Your task to perform on an android device: Open Maps and search for coffee Image 0: 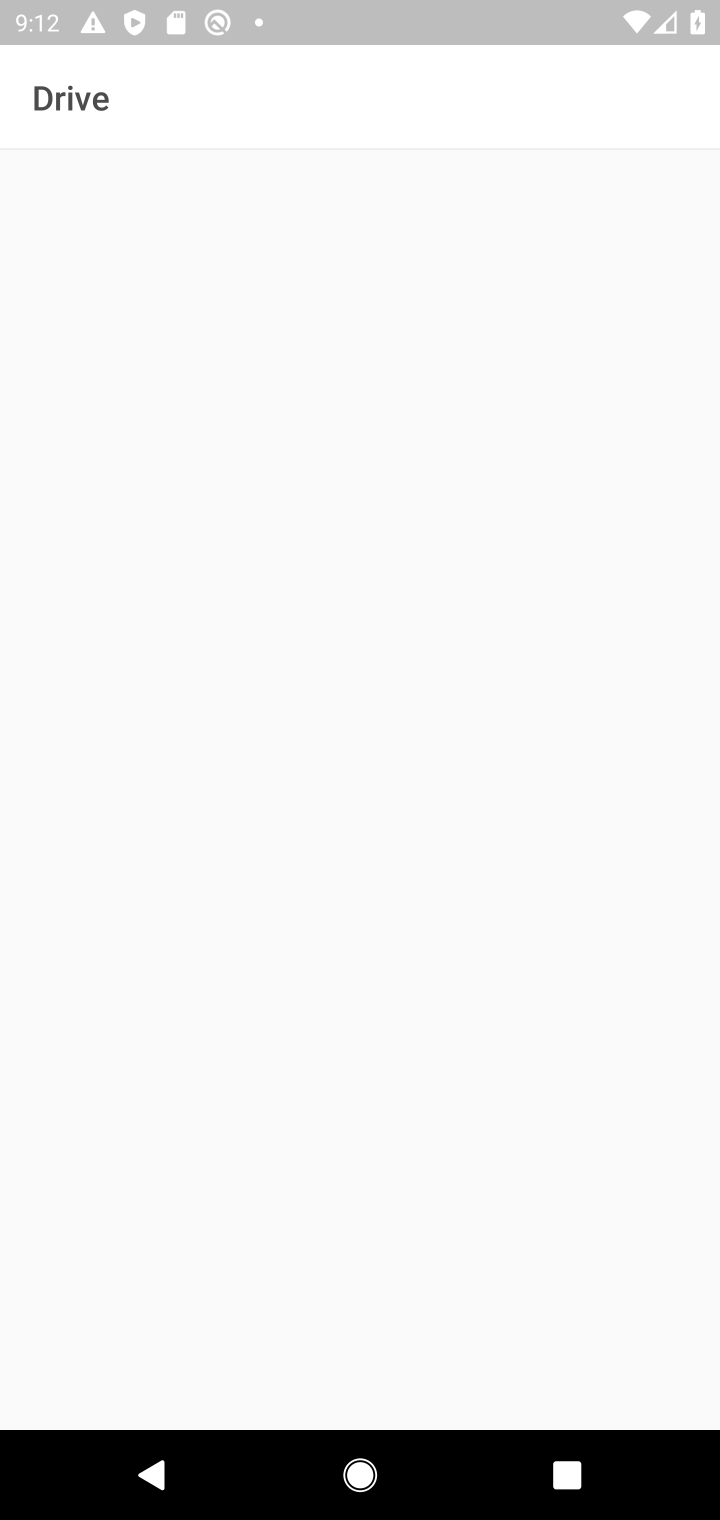
Step 0: press home button
Your task to perform on an android device: Open Maps and search for coffee Image 1: 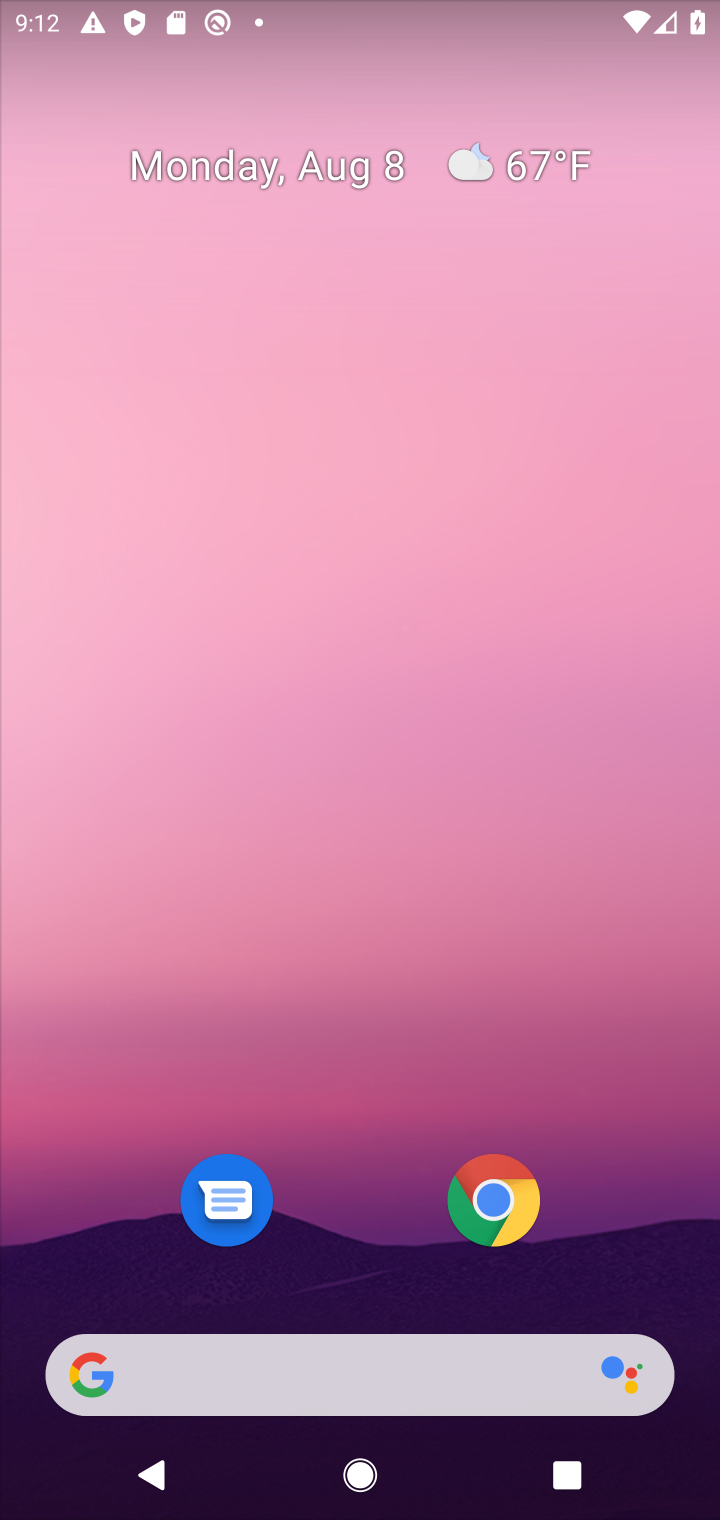
Step 1: drag from (231, 1154) to (379, 379)
Your task to perform on an android device: Open Maps and search for coffee Image 2: 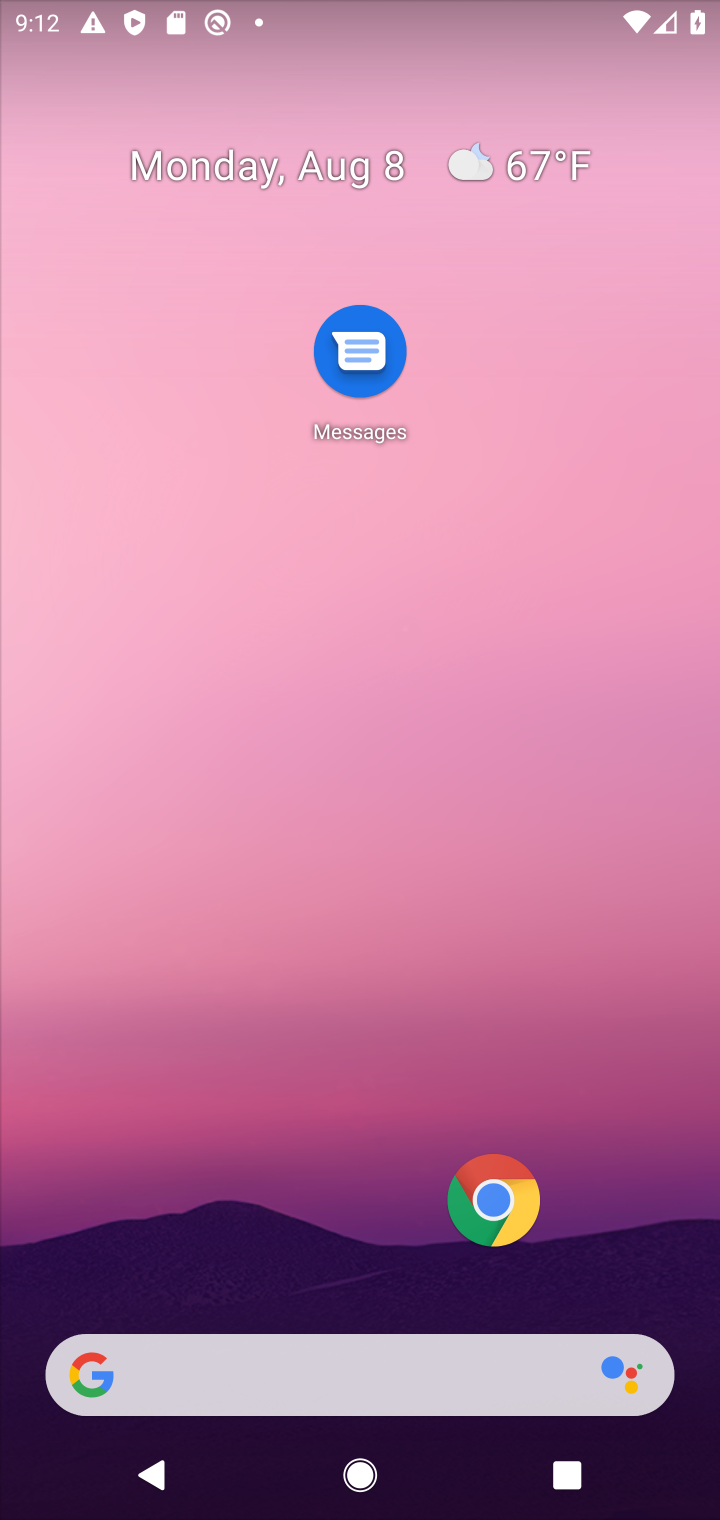
Step 2: drag from (336, 347) to (210, 1272)
Your task to perform on an android device: Open Maps and search for coffee Image 3: 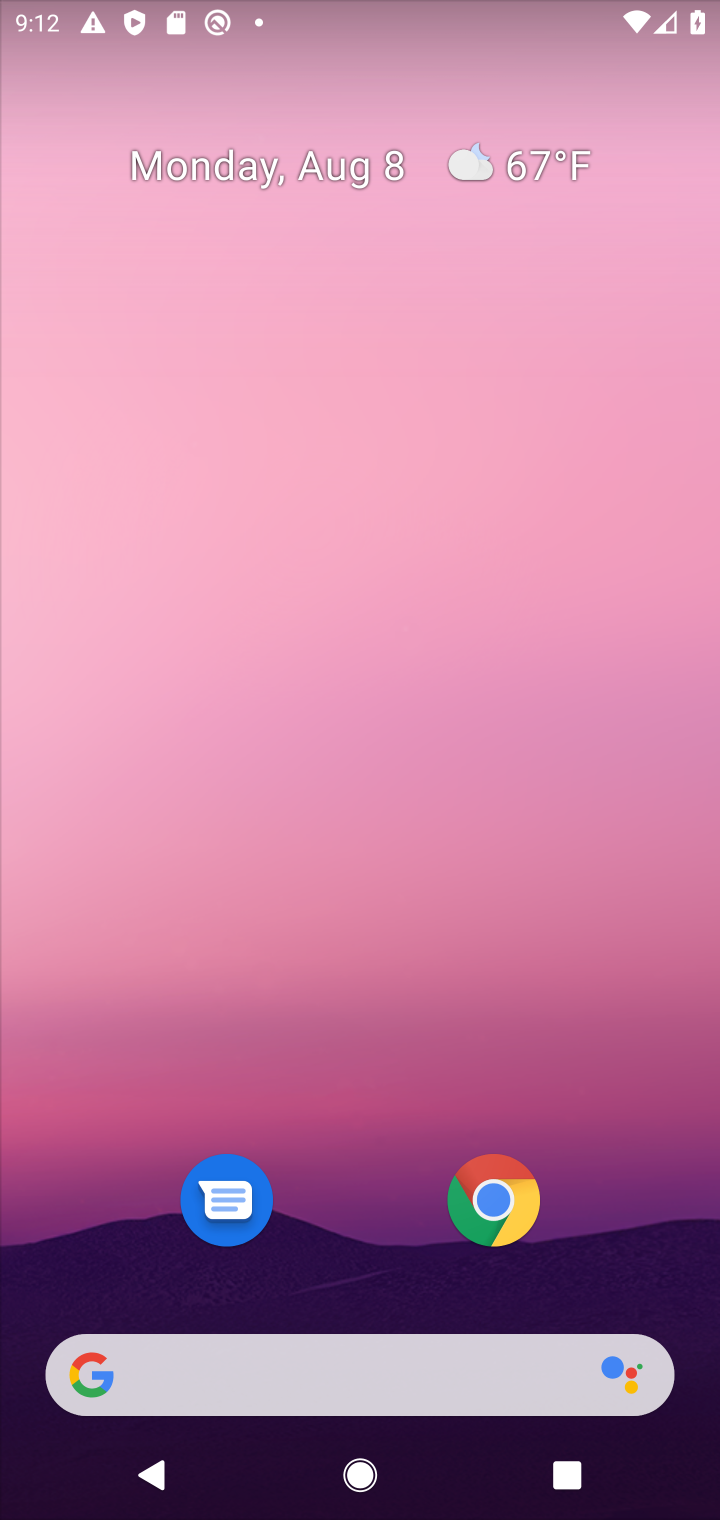
Step 3: drag from (297, 1374) to (498, 239)
Your task to perform on an android device: Open Maps and search for coffee Image 4: 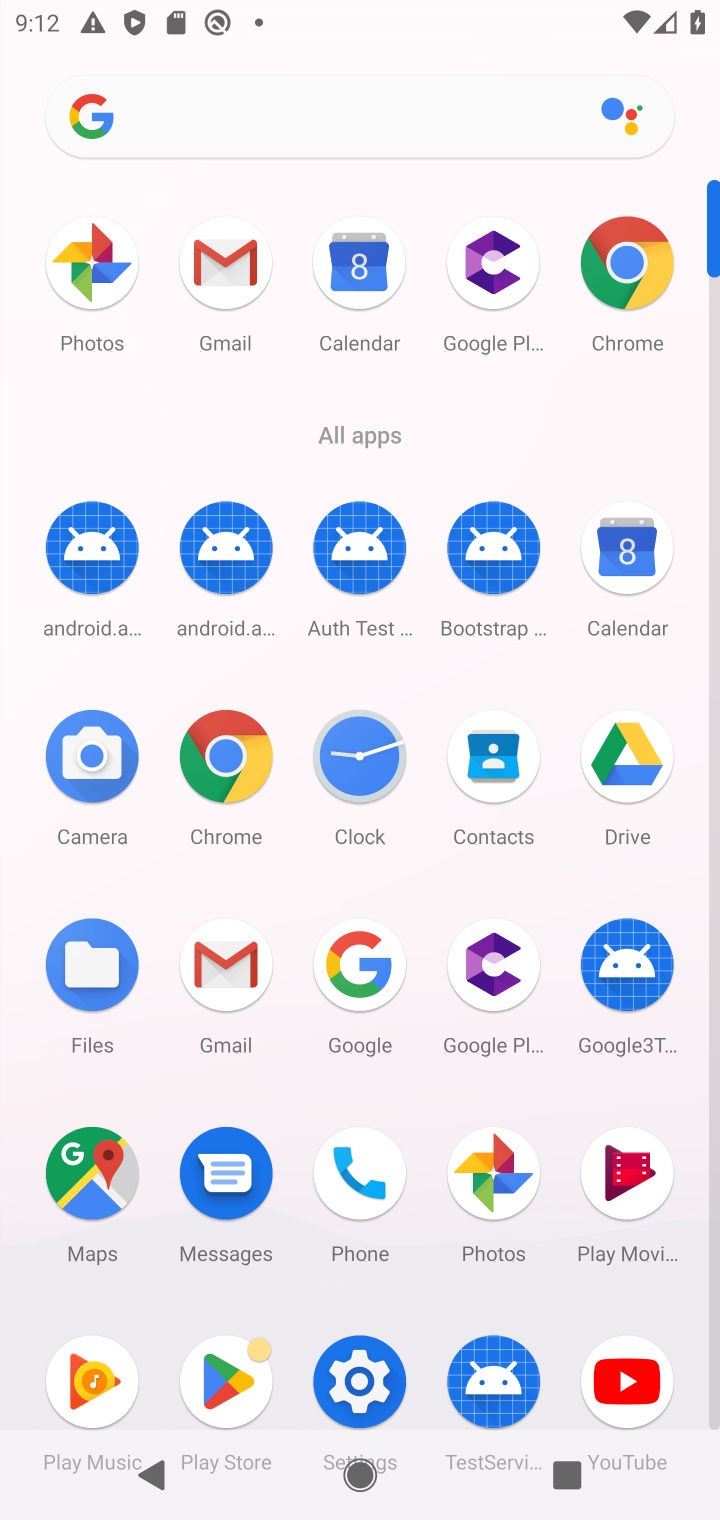
Step 4: drag from (84, 1191) to (138, 824)
Your task to perform on an android device: Open Maps and search for coffee Image 5: 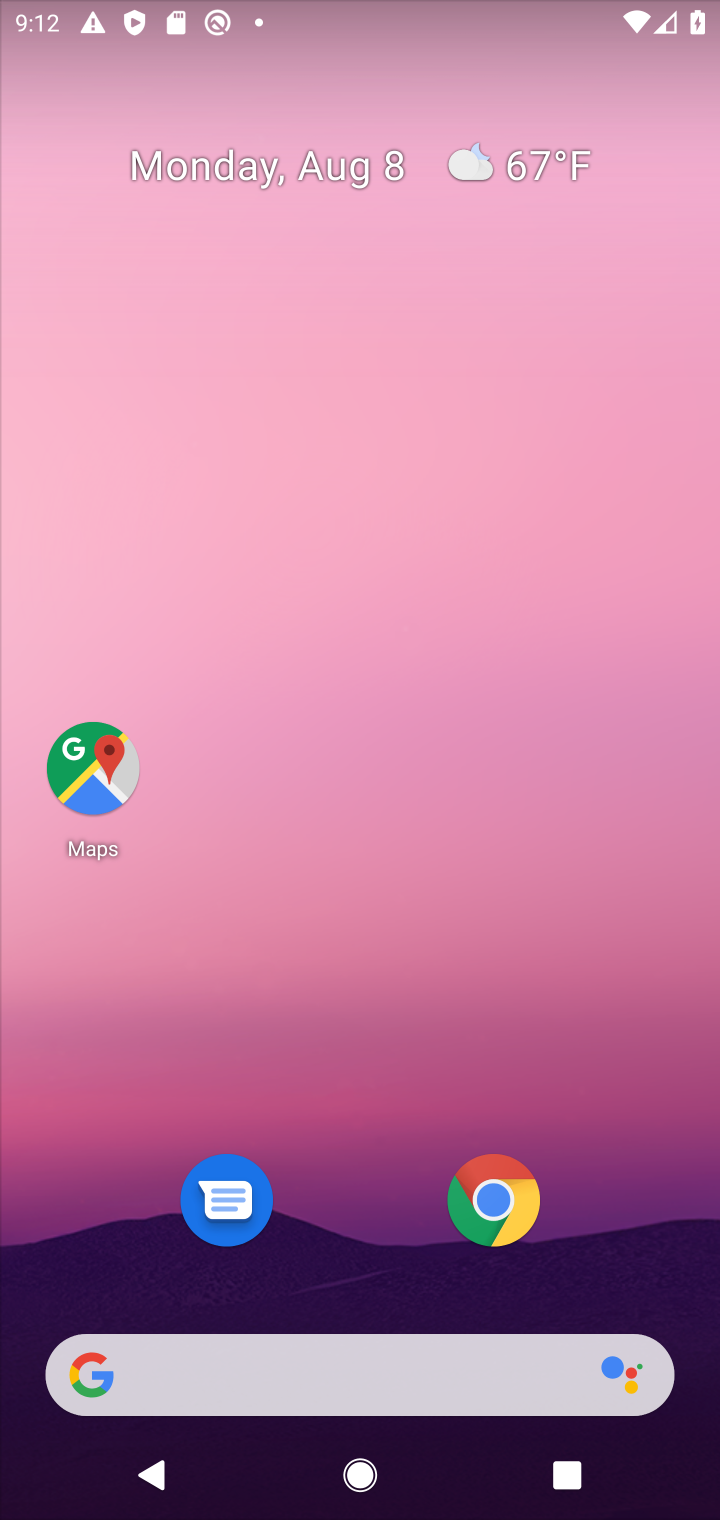
Step 5: click (87, 770)
Your task to perform on an android device: Open Maps and search for coffee Image 6: 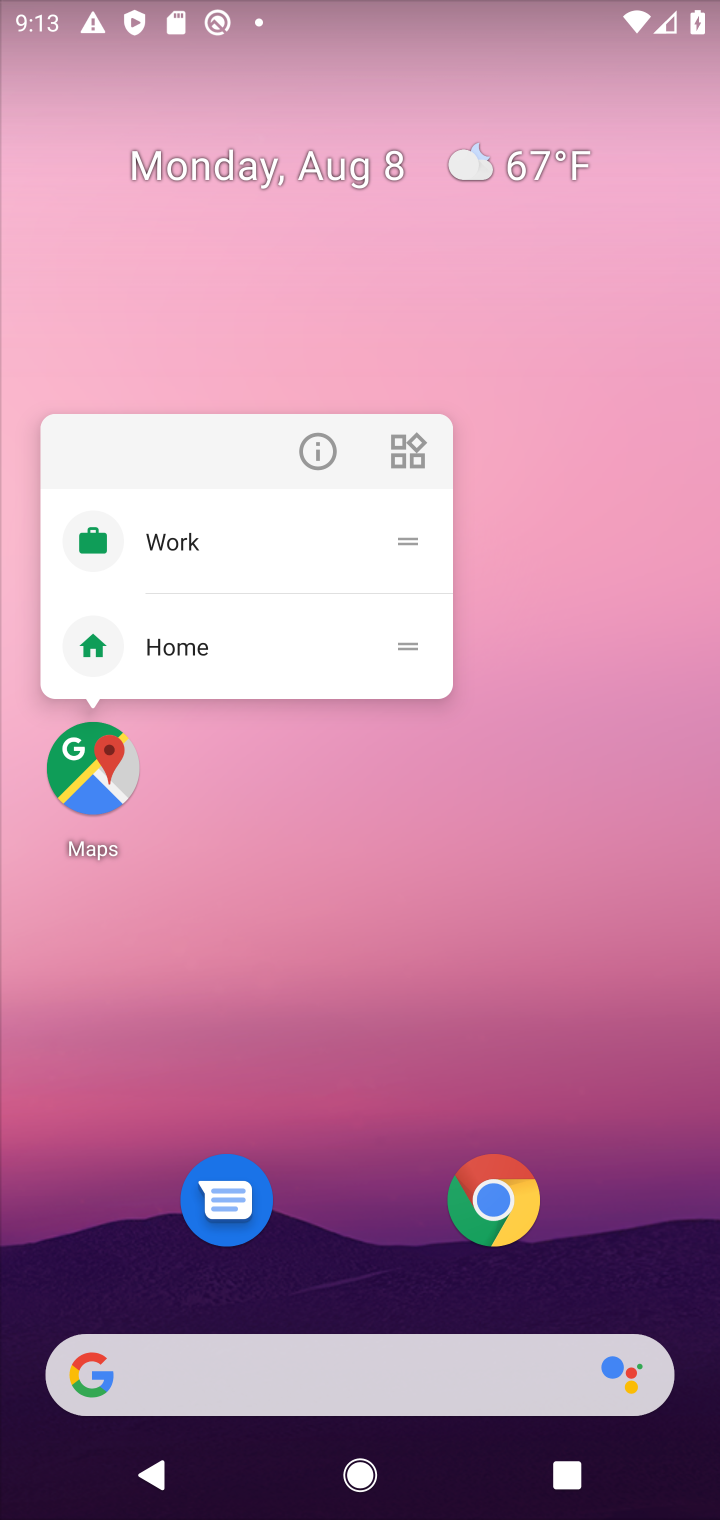
Step 6: click (96, 762)
Your task to perform on an android device: Open Maps and search for coffee Image 7: 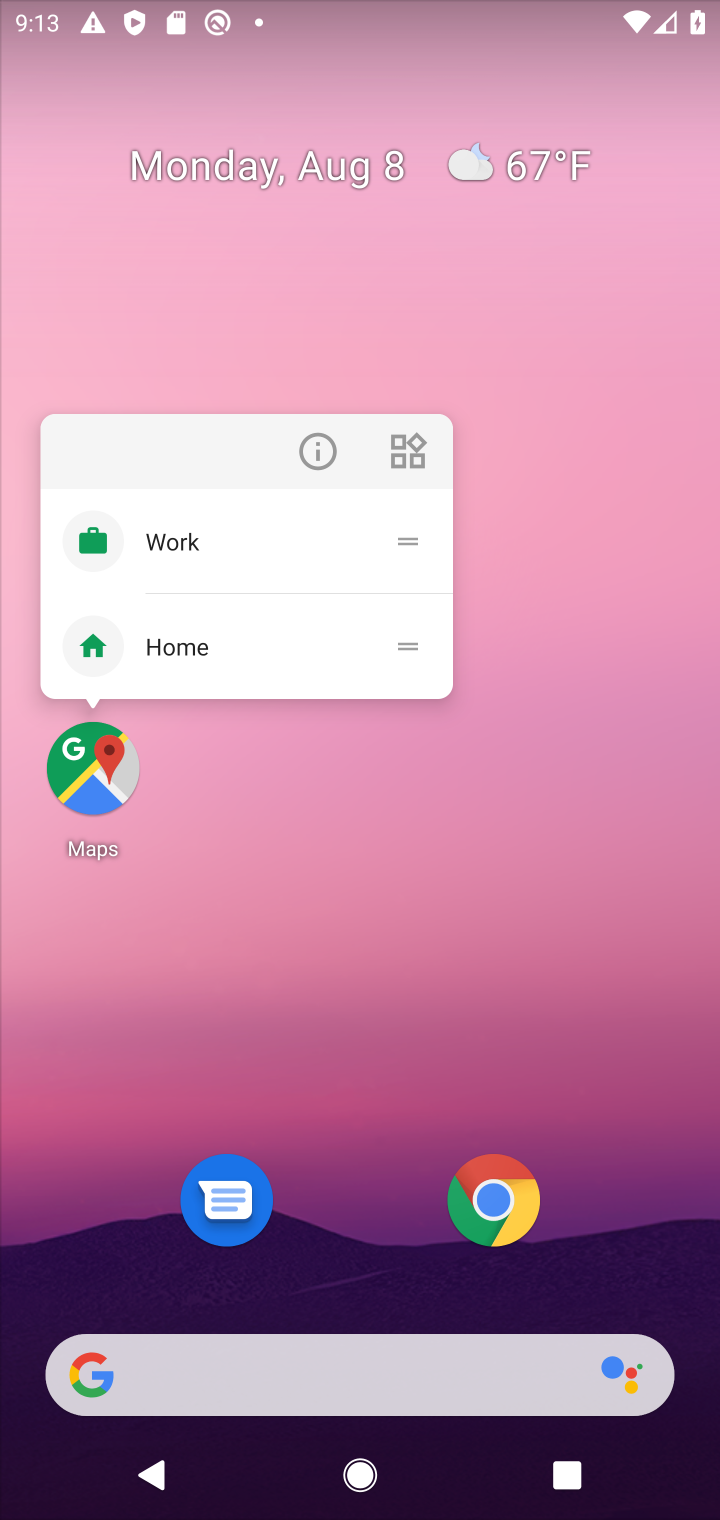
Step 7: click (91, 770)
Your task to perform on an android device: Open Maps and search for coffee Image 8: 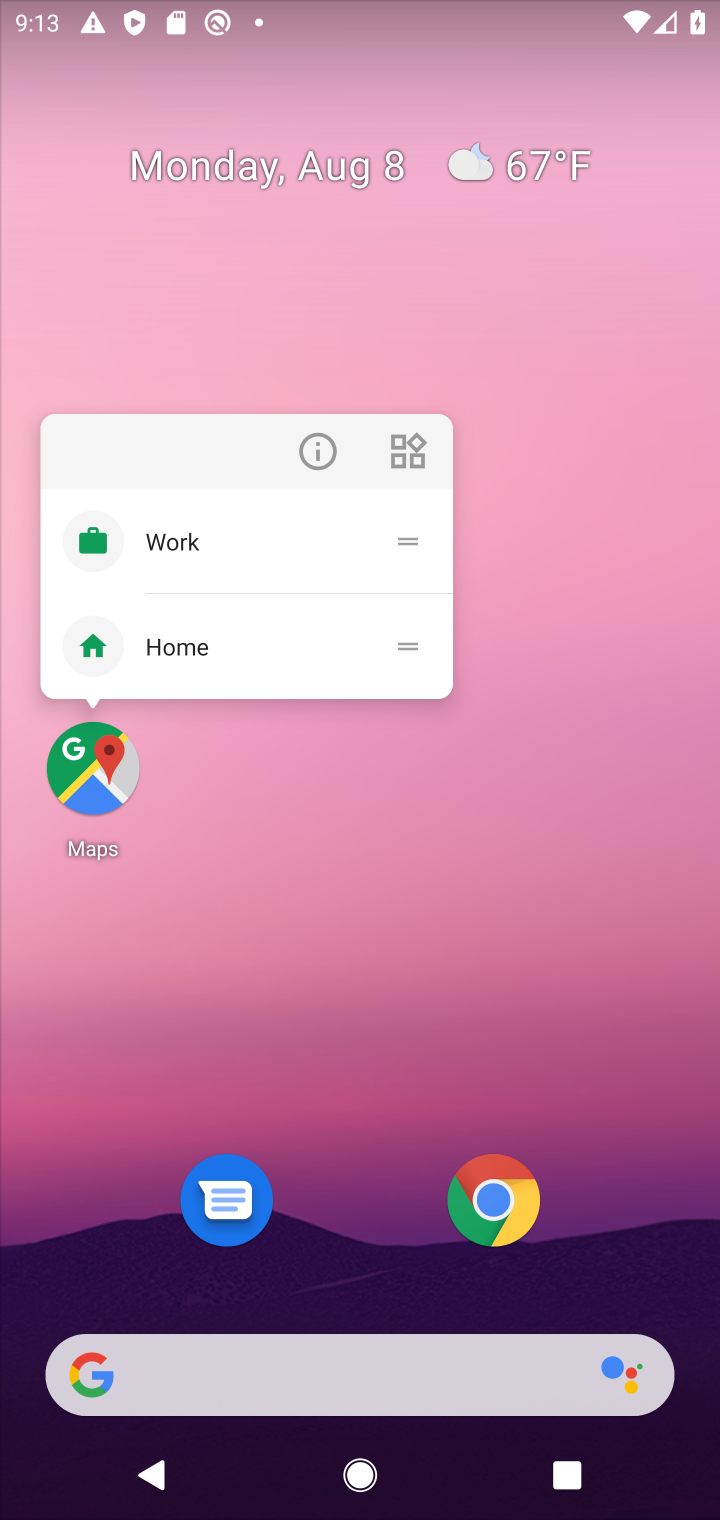
Step 8: click (93, 784)
Your task to perform on an android device: Open Maps and search for coffee Image 9: 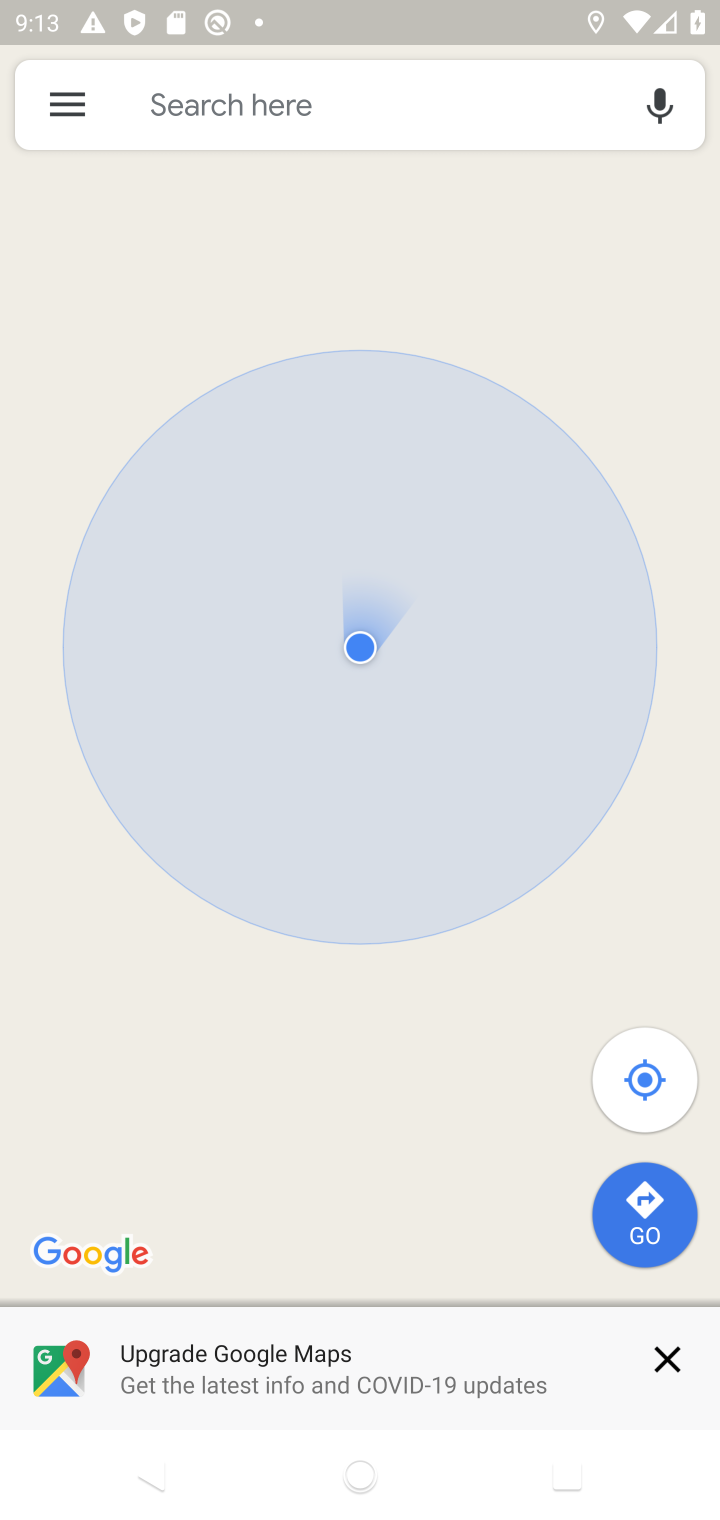
Step 9: click (300, 118)
Your task to perform on an android device: Open Maps and search for coffee Image 10: 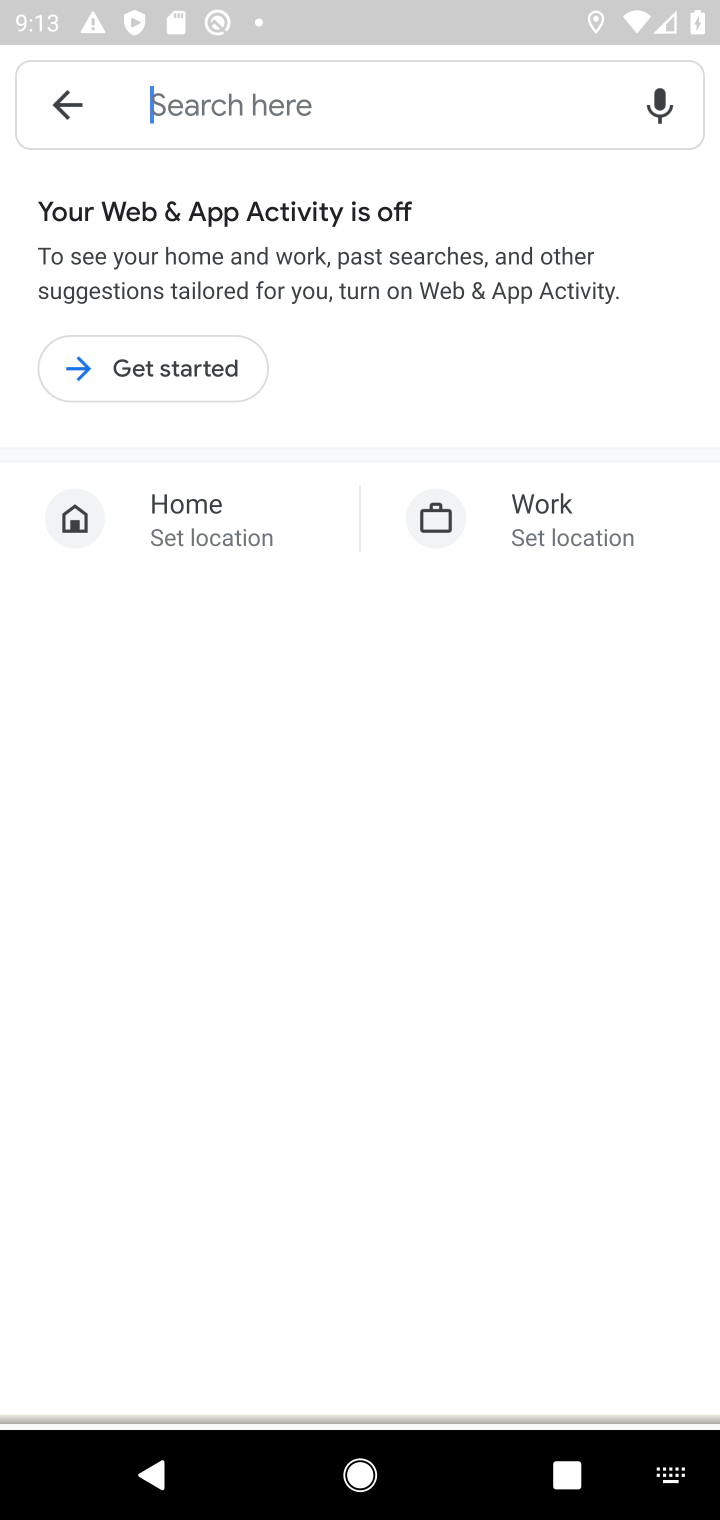
Step 10: click (194, 99)
Your task to perform on an android device: Open Maps and search for coffee Image 11: 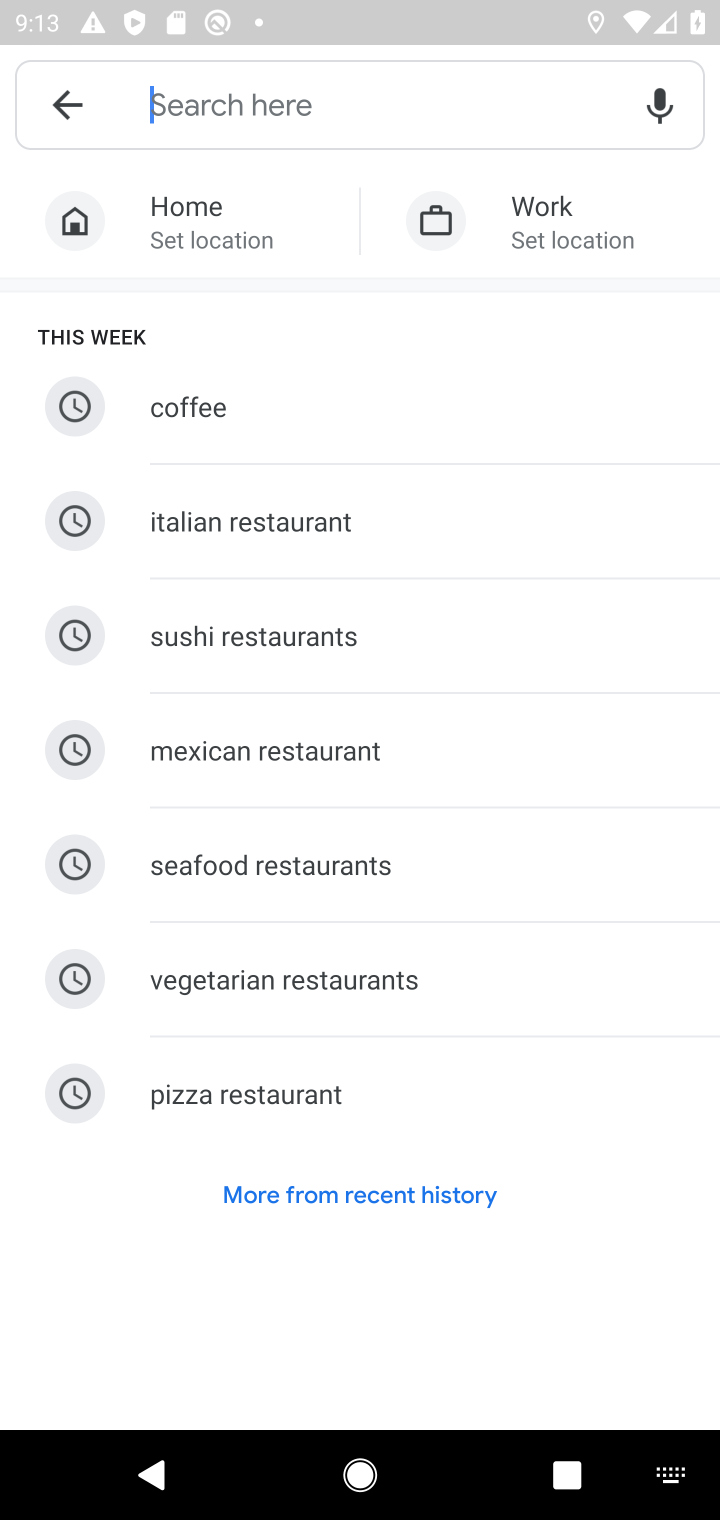
Step 11: click (204, 408)
Your task to perform on an android device: Open Maps and search for coffee Image 12: 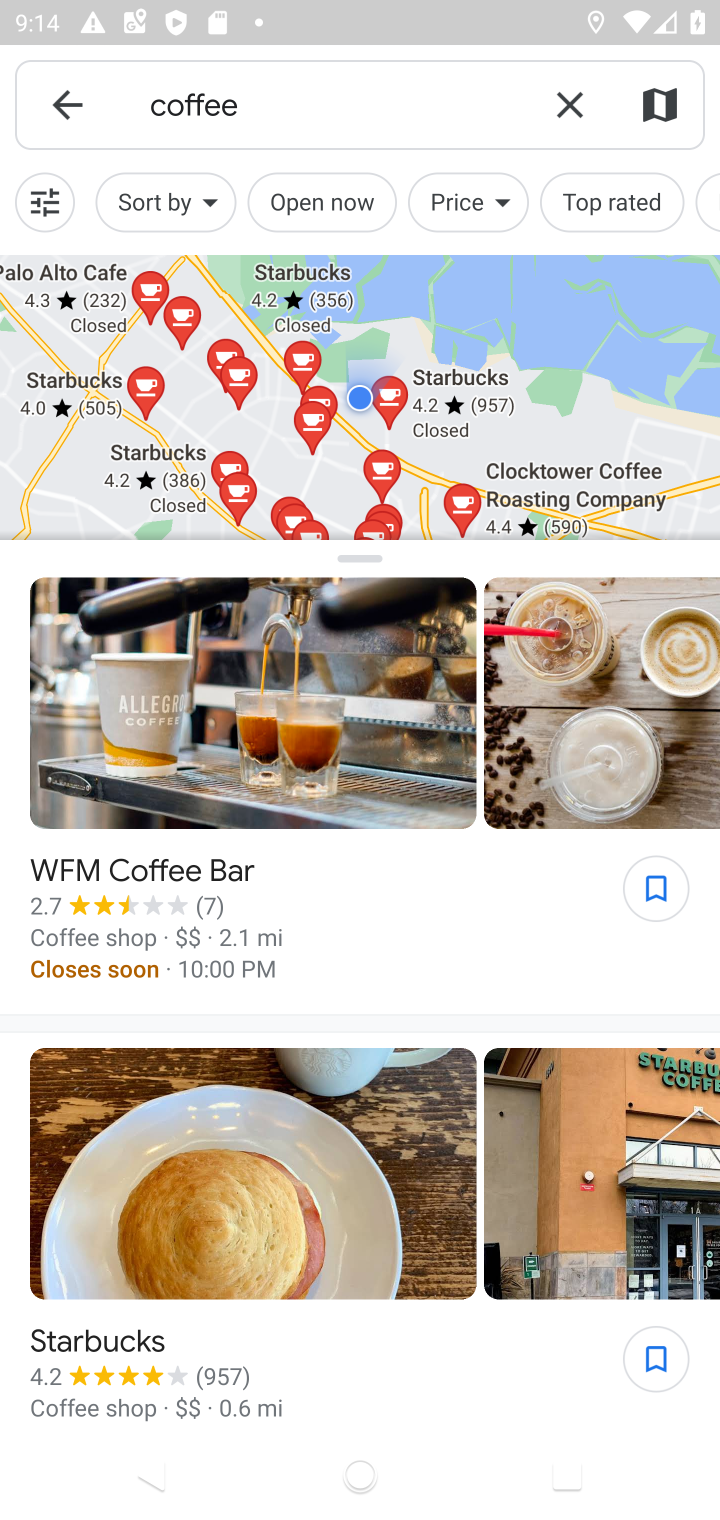
Step 12: task complete